Your task to perform on an android device: Open the web browser Image 0: 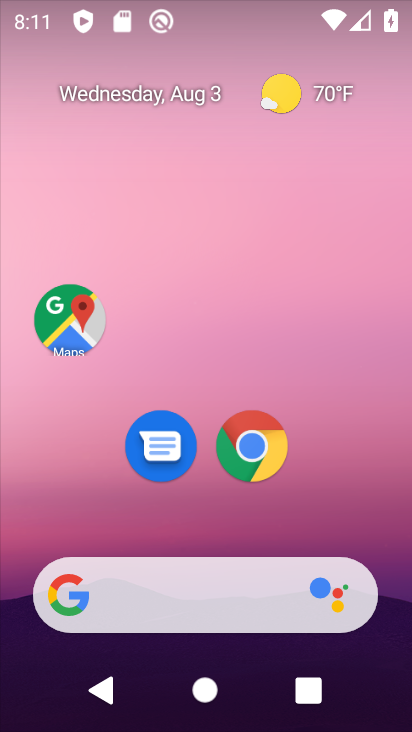
Step 0: click (283, 605)
Your task to perform on an android device: Open the web browser Image 1: 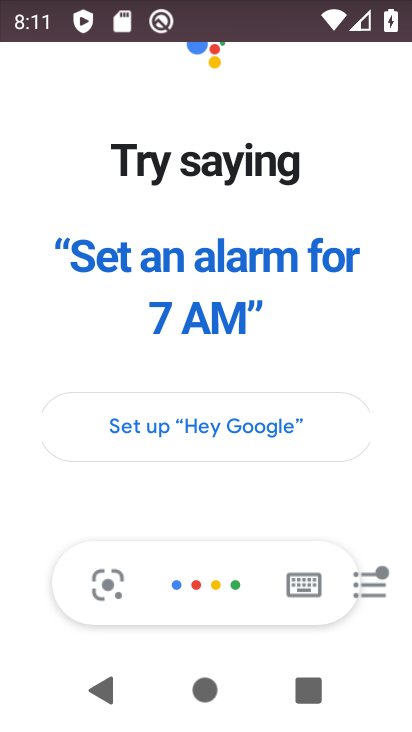
Step 1: click (245, 429)
Your task to perform on an android device: Open the web browser Image 2: 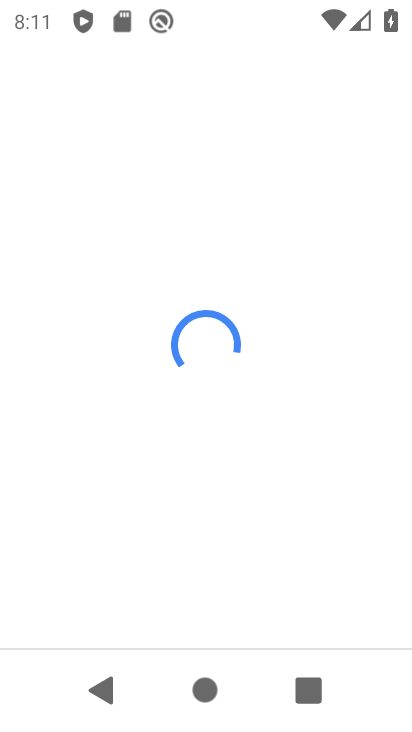
Step 2: press back button
Your task to perform on an android device: Open the web browser Image 3: 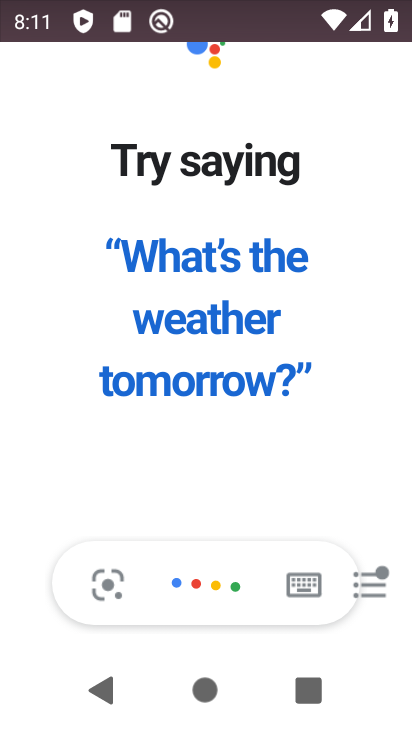
Step 3: press back button
Your task to perform on an android device: Open the web browser Image 4: 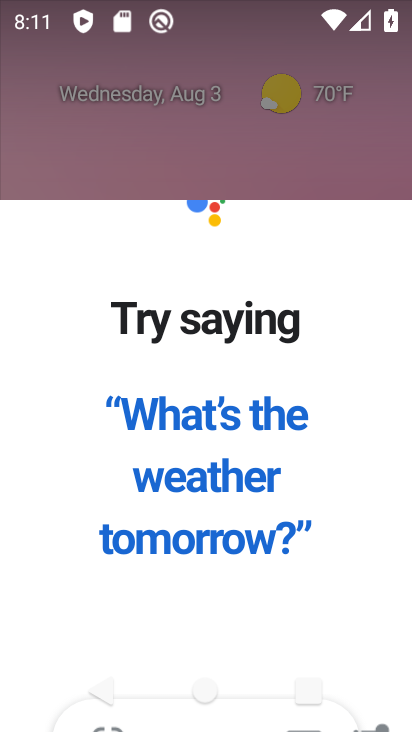
Step 4: press home button
Your task to perform on an android device: Open the web browser Image 5: 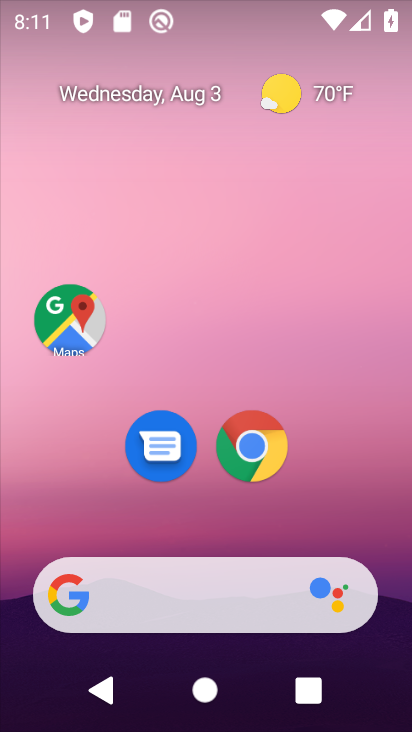
Step 5: click (240, 447)
Your task to perform on an android device: Open the web browser Image 6: 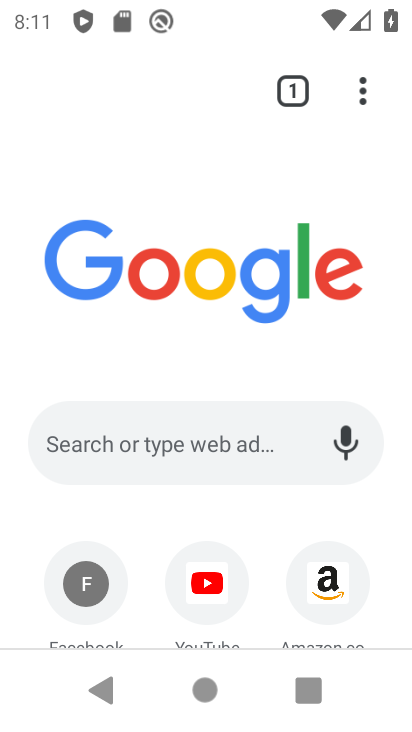
Step 6: task complete